Your task to perform on an android device: When is my next meeting? Image 0: 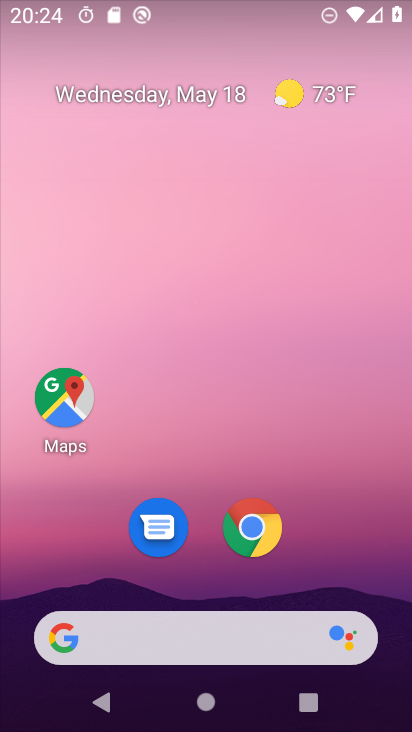
Step 0: drag from (388, 616) to (337, 72)
Your task to perform on an android device: When is my next meeting? Image 1: 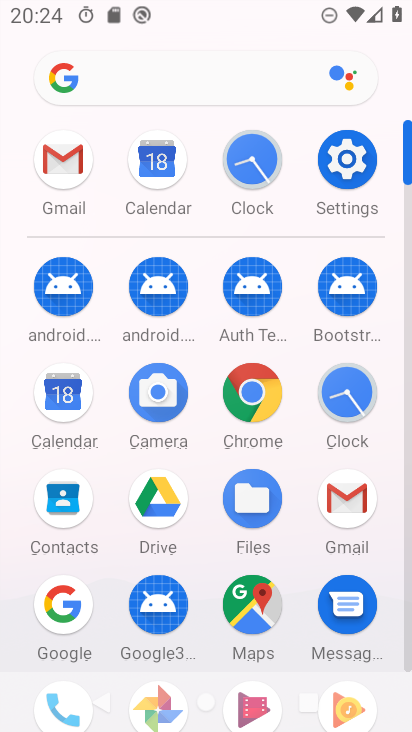
Step 1: click (37, 390)
Your task to perform on an android device: When is my next meeting? Image 2: 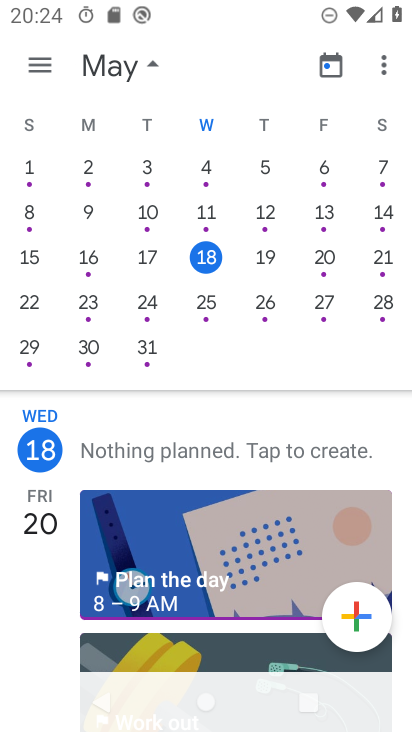
Step 2: click (48, 54)
Your task to perform on an android device: When is my next meeting? Image 3: 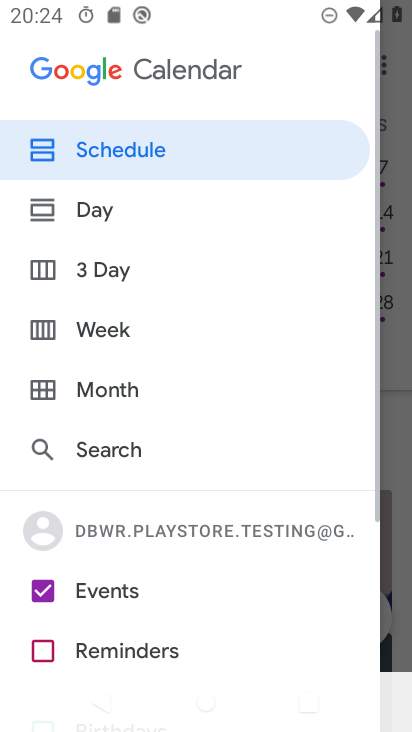
Step 3: click (82, 145)
Your task to perform on an android device: When is my next meeting? Image 4: 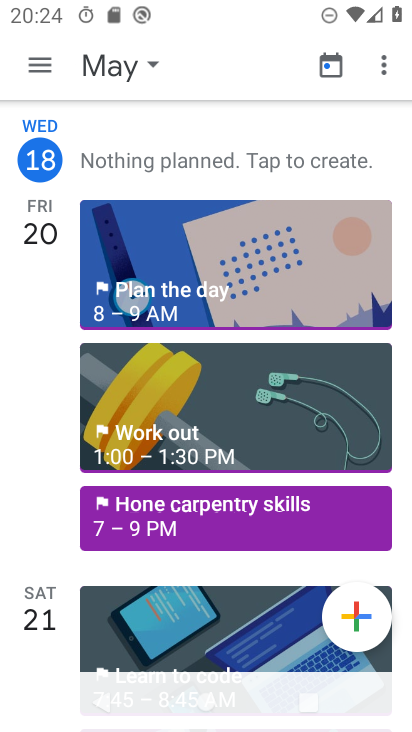
Step 4: task complete